Your task to perform on an android device: add a contact Image 0: 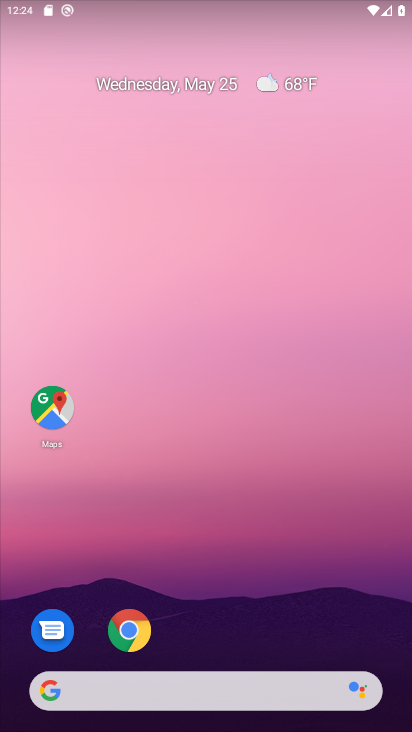
Step 0: drag from (235, 625) to (228, 173)
Your task to perform on an android device: add a contact Image 1: 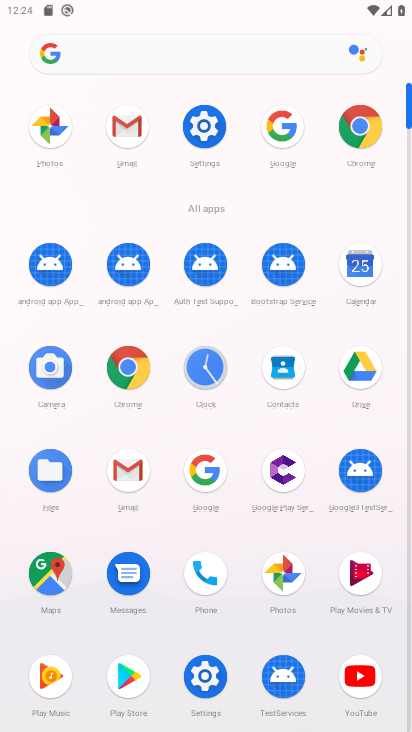
Step 1: drag from (181, 583) to (205, 301)
Your task to perform on an android device: add a contact Image 2: 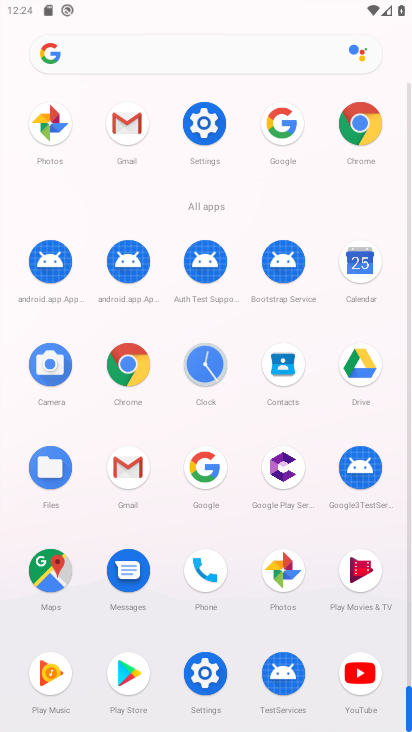
Step 2: drag from (167, 505) to (186, 353)
Your task to perform on an android device: add a contact Image 3: 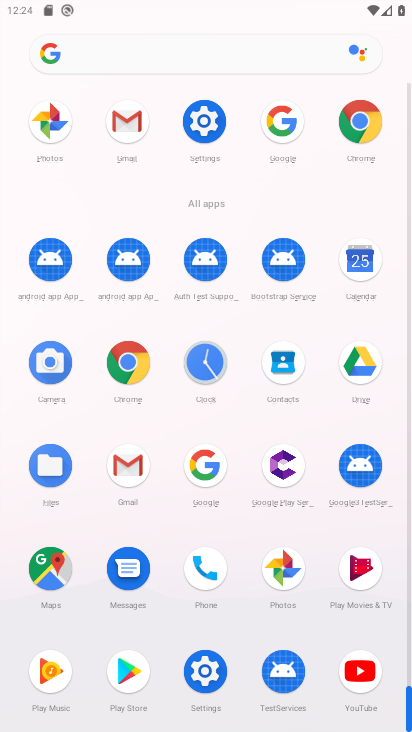
Step 3: click (278, 352)
Your task to perform on an android device: add a contact Image 4: 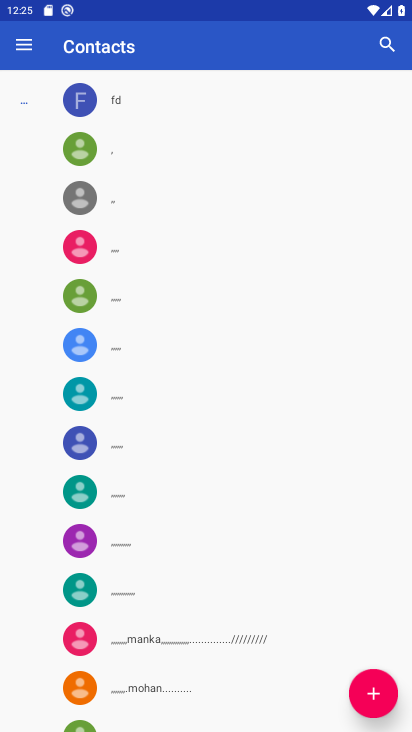
Step 4: click (372, 694)
Your task to perform on an android device: add a contact Image 5: 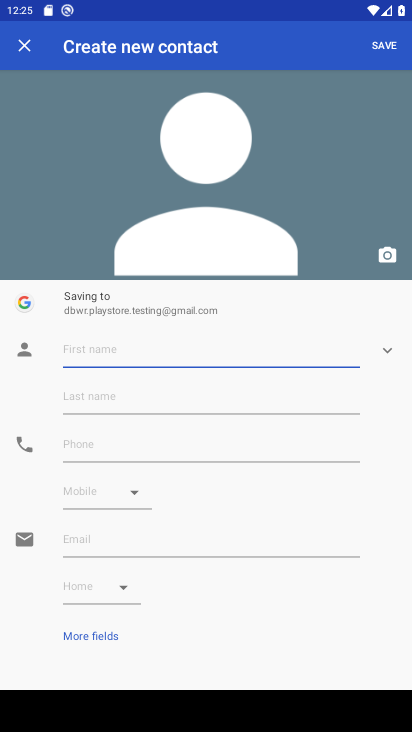
Step 5: type "gngfndg"
Your task to perform on an android device: add a contact Image 6: 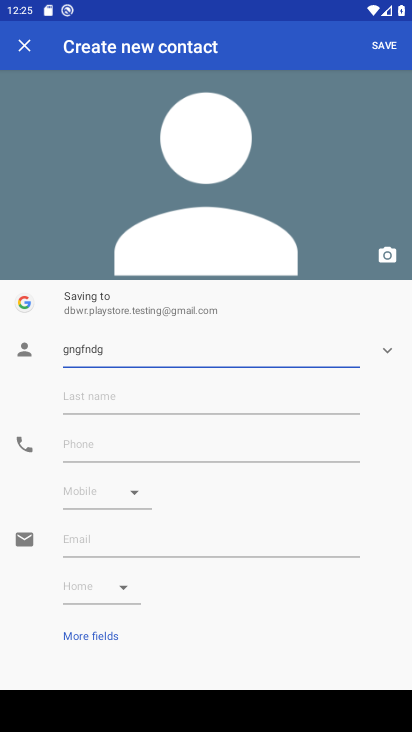
Step 6: click (125, 436)
Your task to perform on an android device: add a contact Image 7: 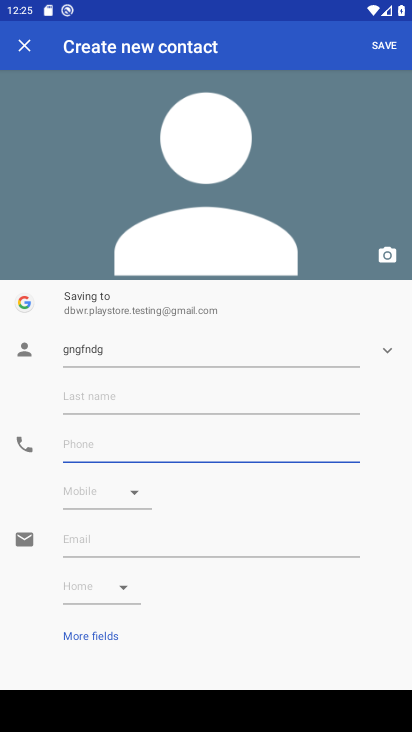
Step 7: type "96756767"
Your task to perform on an android device: add a contact Image 8: 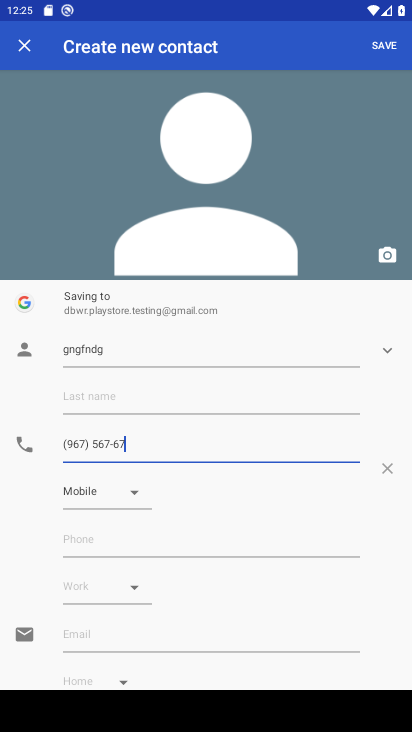
Step 8: click (385, 51)
Your task to perform on an android device: add a contact Image 9: 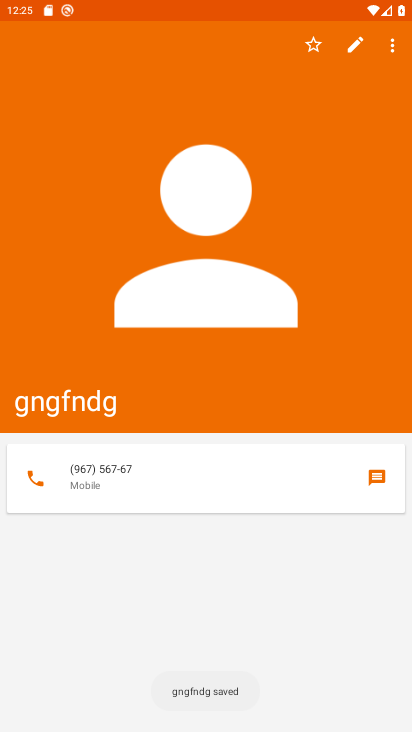
Step 9: task complete